Your task to perform on an android device: Open Youtube and go to the subscriptions tab Image 0: 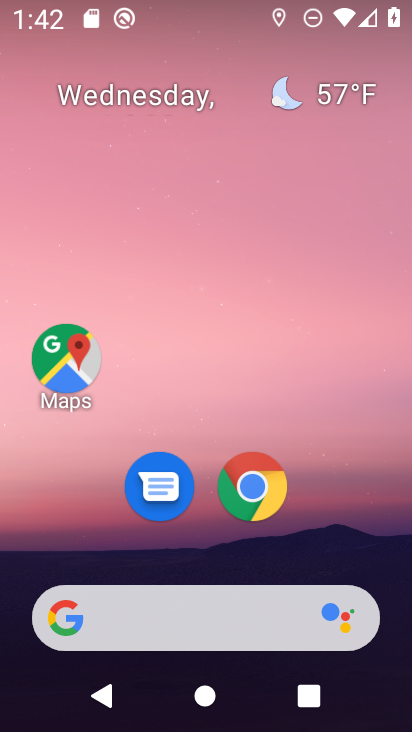
Step 0: drag from (354, 537) to (371, 98)
Your task to perform on an android device: Open Youtube and go to the subscriptions tab Image 1: 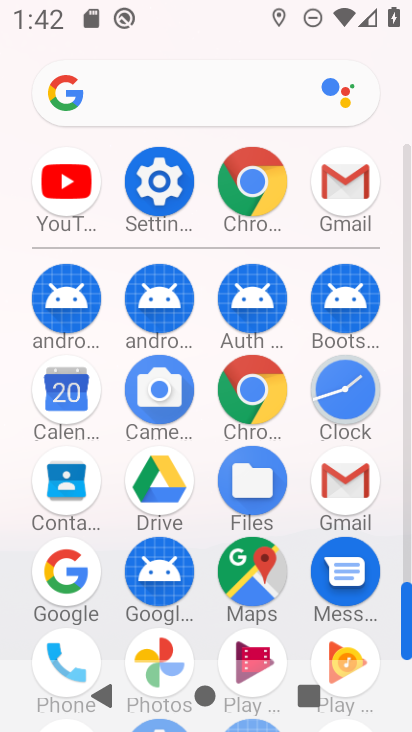
Step 1: click (75, 194)
Your task to perform on an android device: Open Youtube and go to the subscriptions tab Image 2: 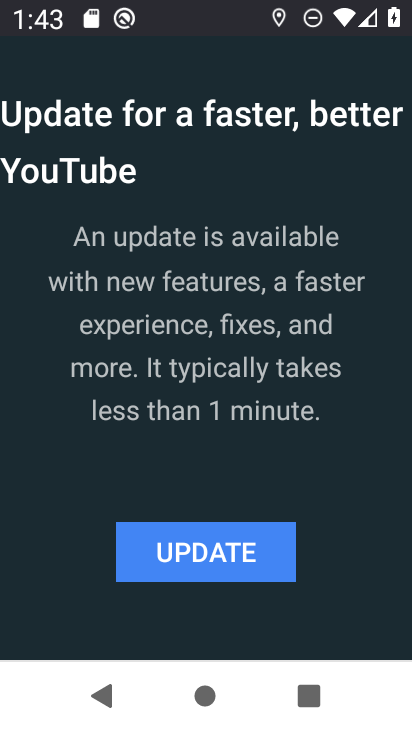
Step 2: click (255, 558)
Your task to perform on an android device: Open Youtube and go to the subscriptions tab Image 3: 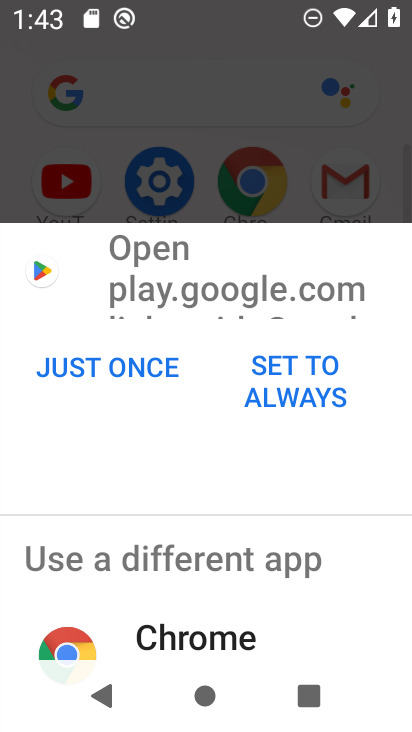
Step 3: click (147, 367)
Your task to perform on an android device: Open Youtube and go to the subscriptions tab Image 4: 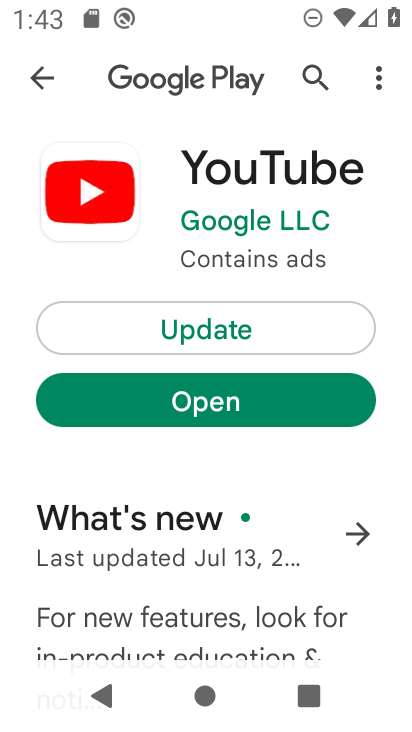
Step 4: click (202, 336)
Your task to perform on an android device: Open Youtube and go to the subscriptions tab Image 5: 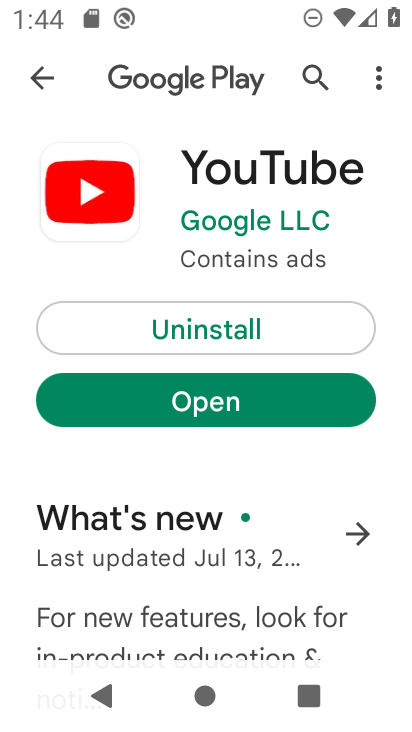
Step 5: click (318, 411)
Your task to perform on an android device: Open Youtube and go to the subscriptions tab Image 6: 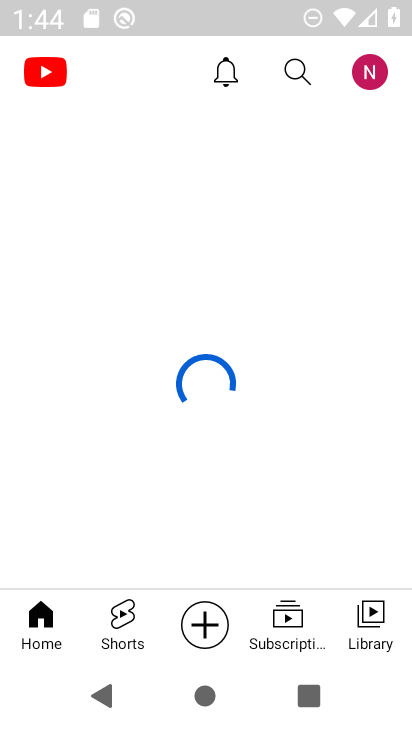
Step 6: click (256, 629)
Your task to perform on an android device: Open Youtube and go to the subscriptions tab Image 7: 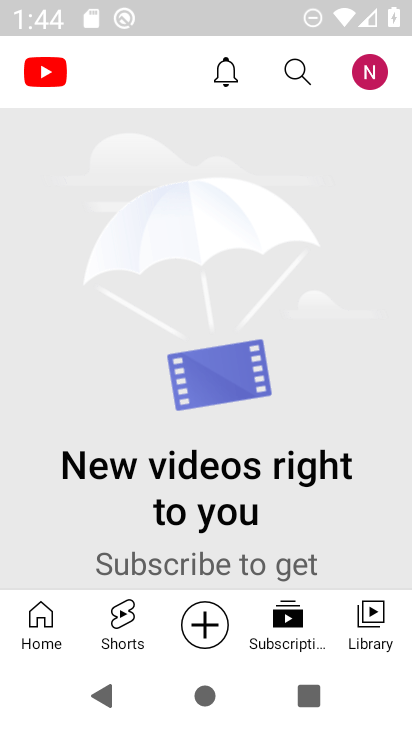
Step 7: task complete